Your task to perform on an android device: turn on airplane mode Image 0: 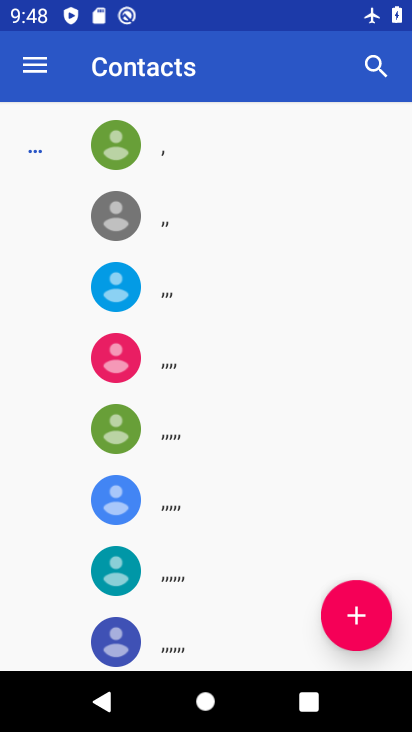
Step 0: press home button
Your task to perform on an android device: turn on airplane mode Image 1: 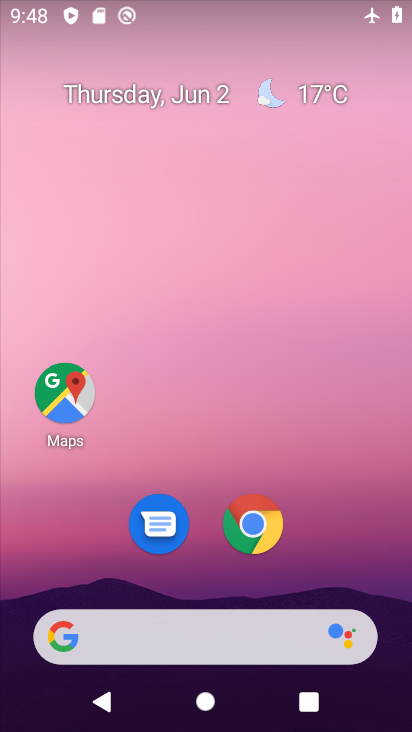
Step 1: drag from (250, 452) to (233, 15)
Your task to perform on an android device: turn on airplane mode Image 2: 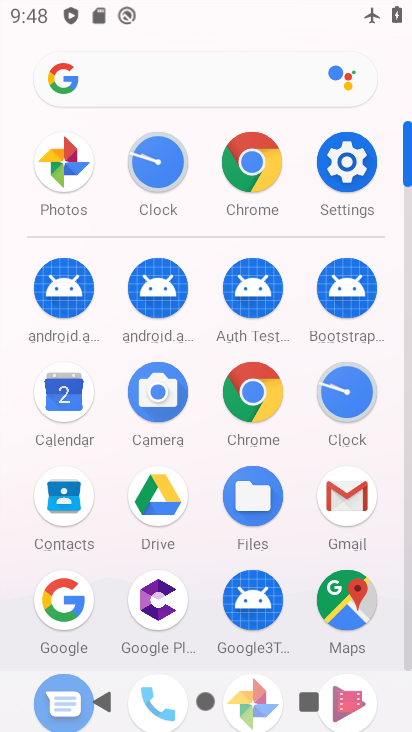
Step 2: click (343, 166)
Your task to perform on an android device: turn on airplane mode Image 3: 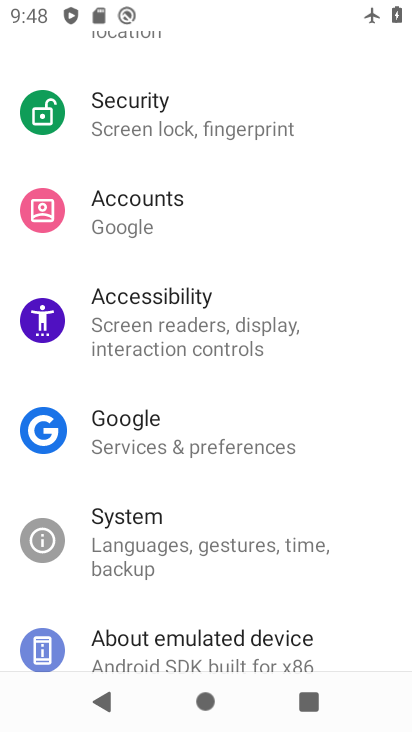
Step 3: drag from (231, 194) to (275, 639)
Your task to perform on an android device: turn on airplane mode Image 4: 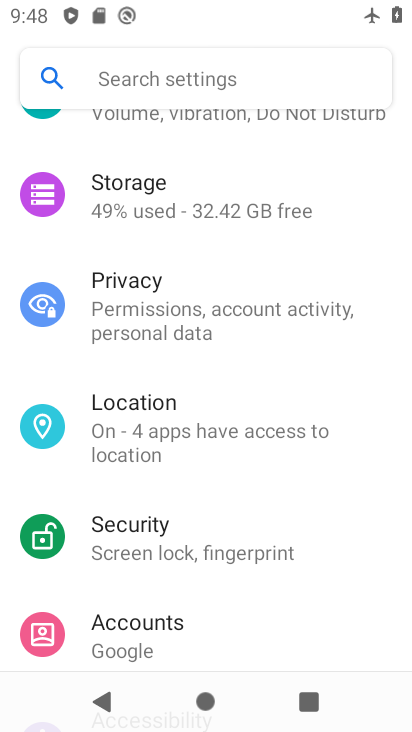
Step 4: drag from (254, 160) to (303, 571)
Your task to perform on an android device: turn on airplane mode Image 5: 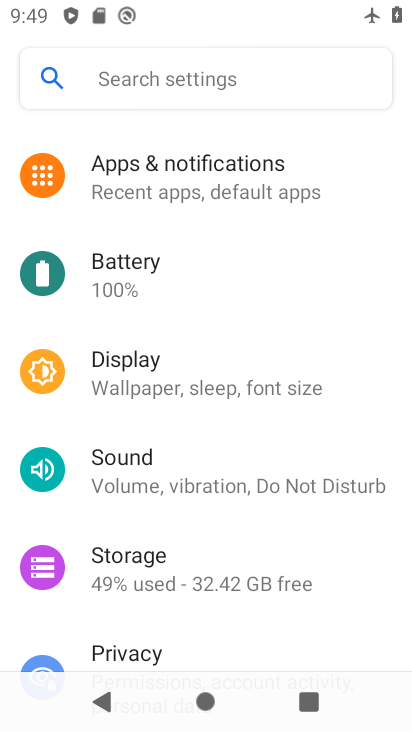
Step 5: drag from (254, 249) to (290, 573)
Your task to perform on an android device: turn on airplane mode Image 6: 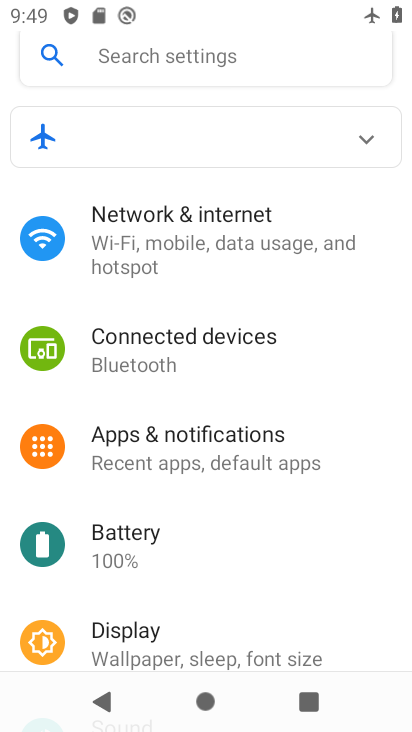
Step 6: click (219, 232)
Your task to perform on an android device: turn on airplane mode Image 7: 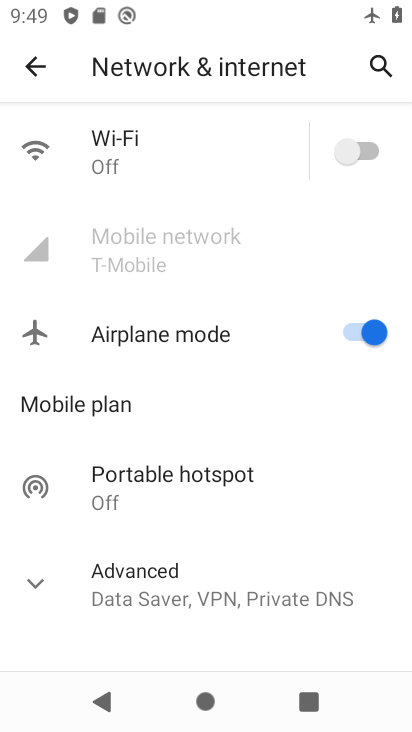
Step 7: task complete